Your task to perform on an android device: check the backup settings in the google photos Image 0: 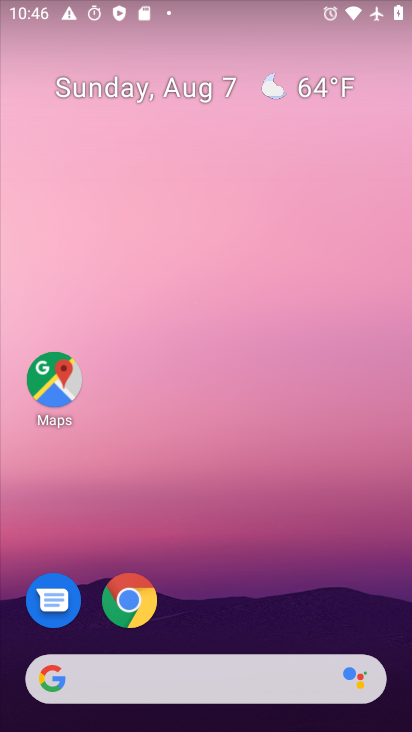
Step 0: drag from (223, 678) to (253, 235)
Your task to perform on an android device: check the backup settings in the google photos Image 1: 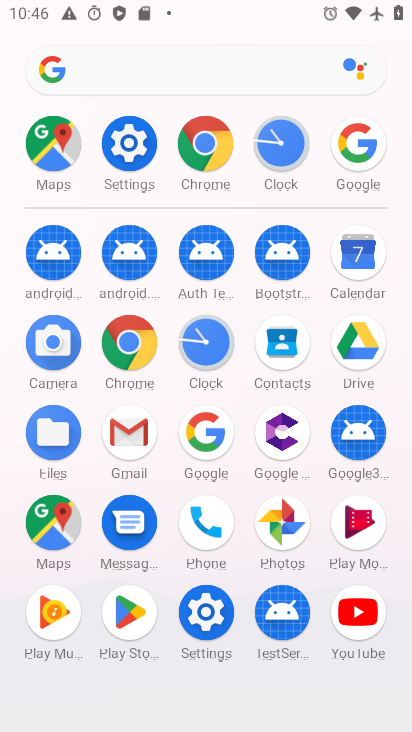
Step 1: click (290, 531)
Your task to perform on an android device: check the backup settings in the google photos Image 2: 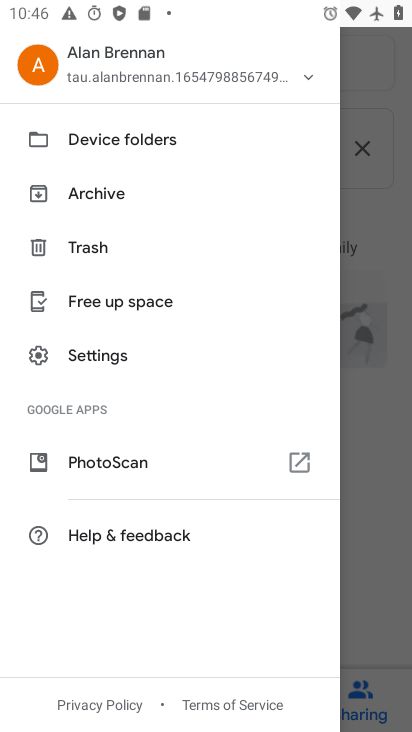
Step 2: click (95, 349)
Your task to perform on an android device: check the backup settings in the google photos Image 3: 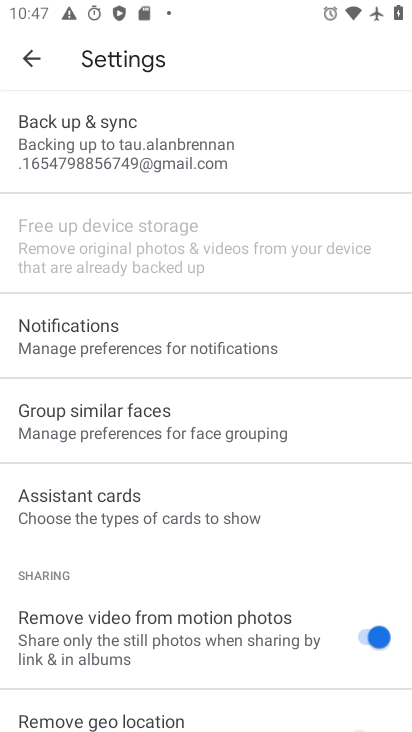
Step 3: click (147, 154)
Your task to perform on an android device: check the backup settings in the google photos Image 4: 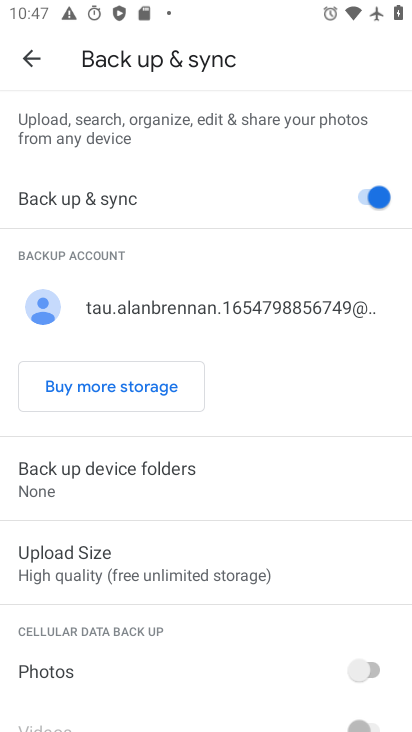
Step 4: task complete